Your task to perform on an android device: Search for Mexican restaurants on Maps Image 0: 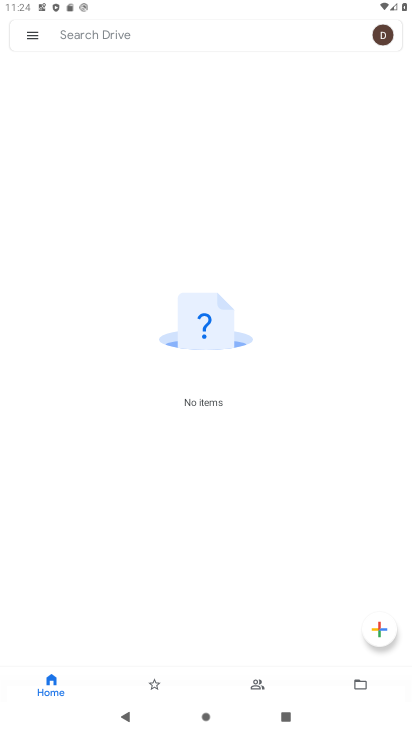
Step 0: press home button
Your task to perform on an android device: Search for Mexican restaurants on Maps Image 1: 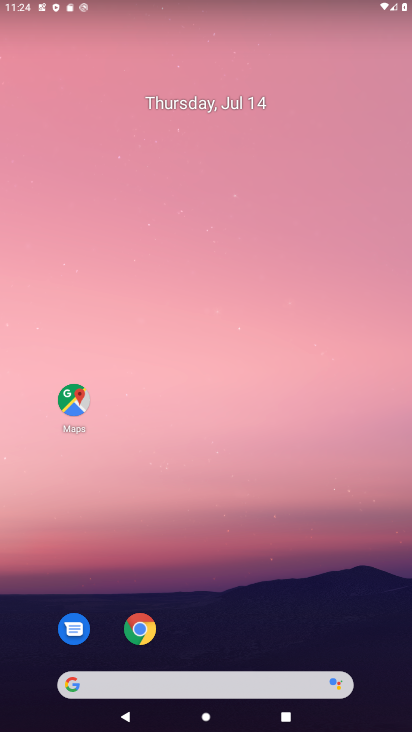
Step 1: click (70, 393)
Your task to perform on an android device: Search for Mexican restaurants on Maps Image 2: 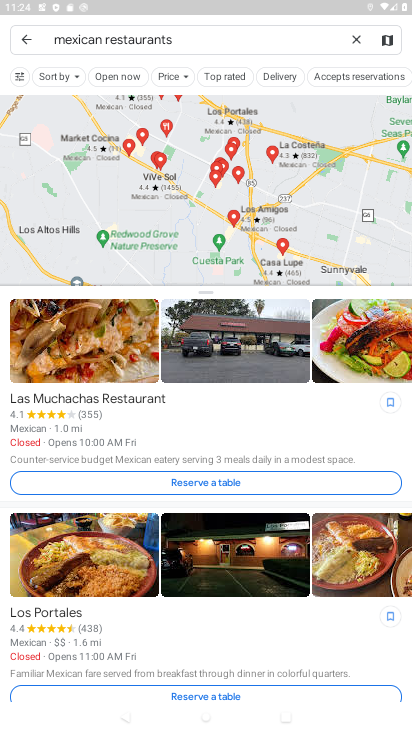
Step 2: task complete